Your task to perform on an android device: change the upload size in google photos Image 0: 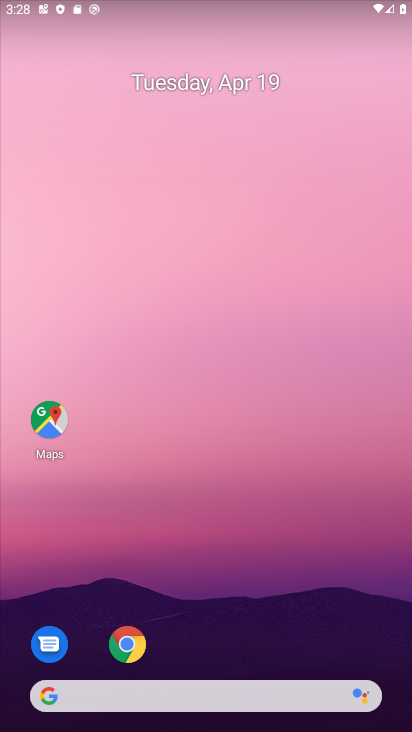
Step 0: drag from (169, 525) to (207, 199)
Your task to perform on an android device: change the upload size in google photos Image 1: 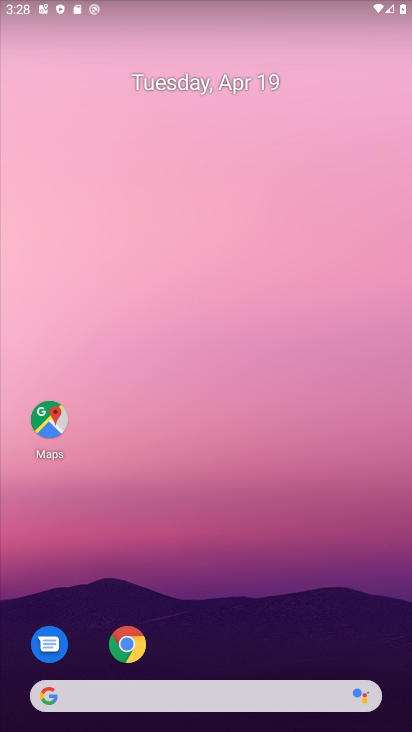
Step 1: drag from (154, 665) to (267, 183)
Your task to perform on an android device: change the upload size in google photos Image 2: 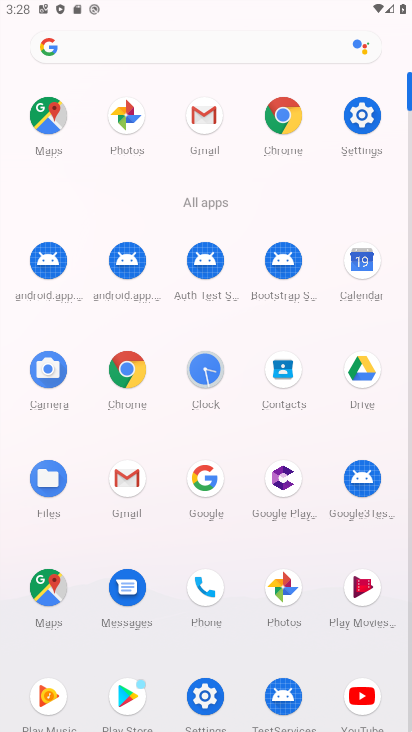
Step 2: click (288, 585)
Your task to perform on an android device: change the upload size in google photos Image 3: 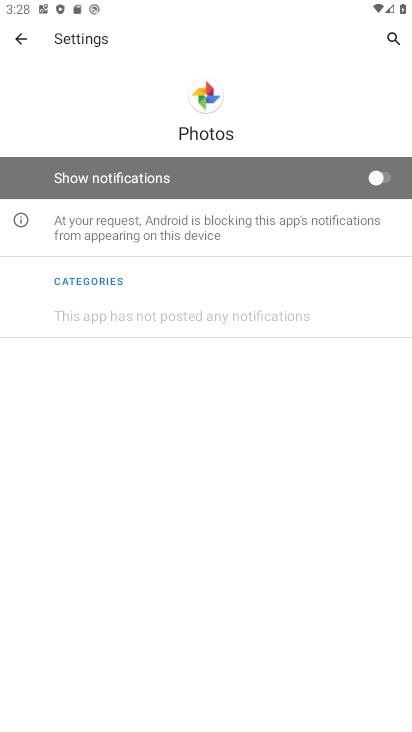
Step 3: click (25, 39)
Your task to perform on an android device: change the upload size in google photos Image 4: 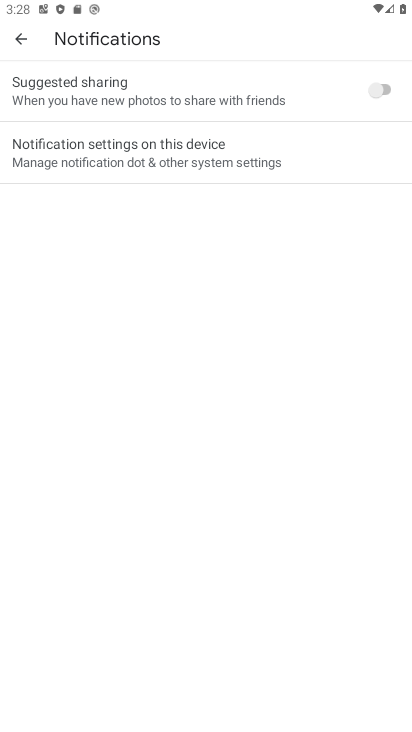
Step 4: click (25, 39)
Your task to perform on an android device: change the upload size in google photos Image 5: 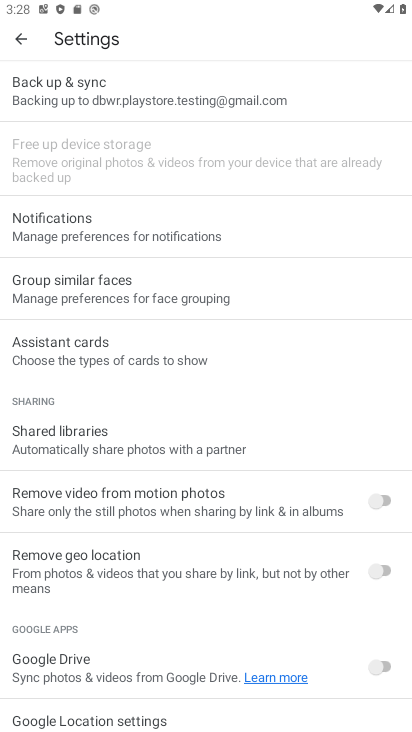
Step 5: click (139, 104)
Your task to perform on an android device: change the upload size in google photos Image 6: 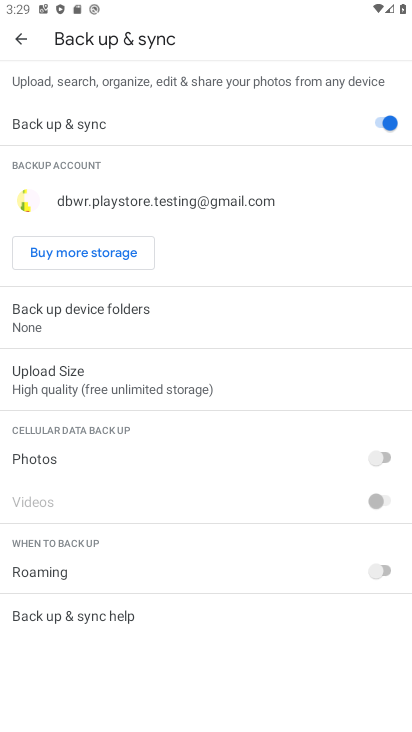
Step 6: click (126, 393)
Your task to perform on an android device: change the upload size in google photos Image 7: 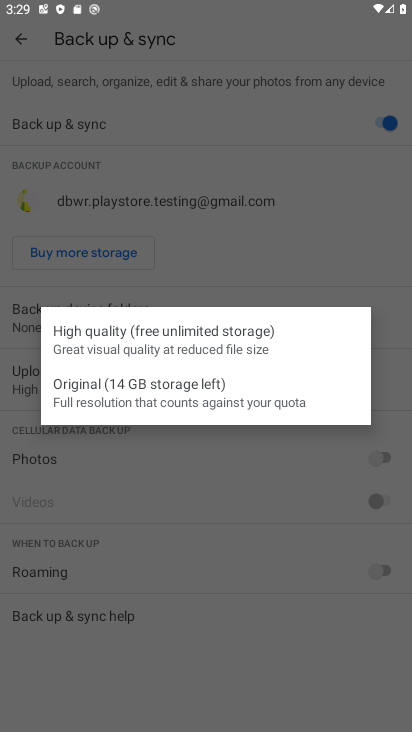
Step 7: click (133, 384)
Your task to perform on an android device: change the upload size in google photos Image 8: 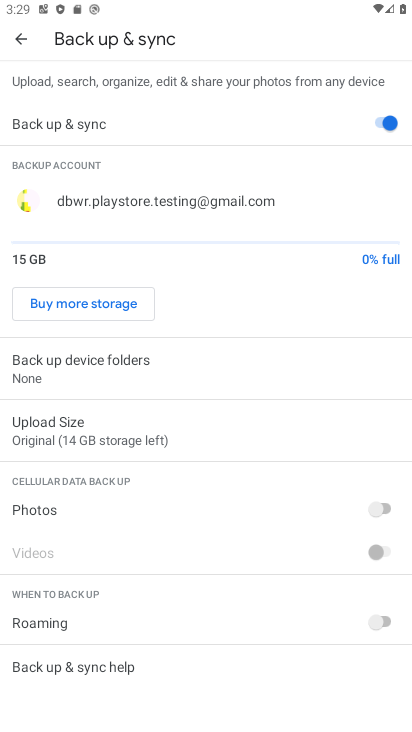
Step 8: task complete